Your task to perform on an android device: change notification settings in the gmail app Image 0: 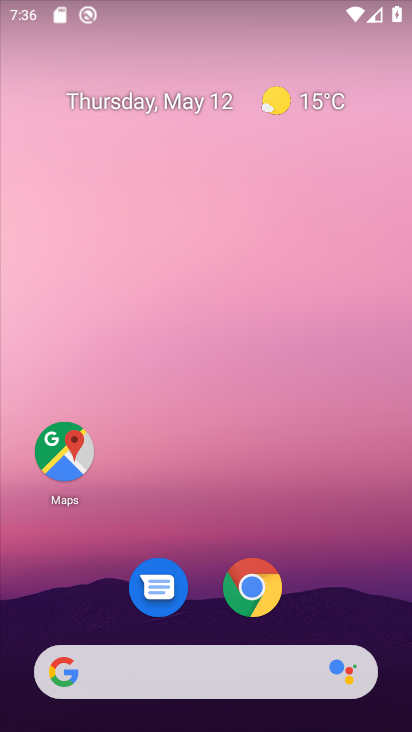
Step 0: drag from (381, 627) to (244, 75)
Your task to perform on an android device: change notification settings in the gmail app Image 1: 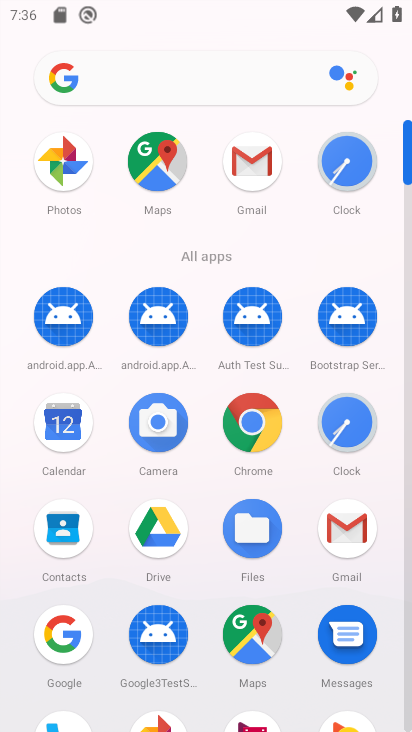
Step 1: click (331, 520)
Your task to perform on an android device: change notification settings in the gmail app Image 2: 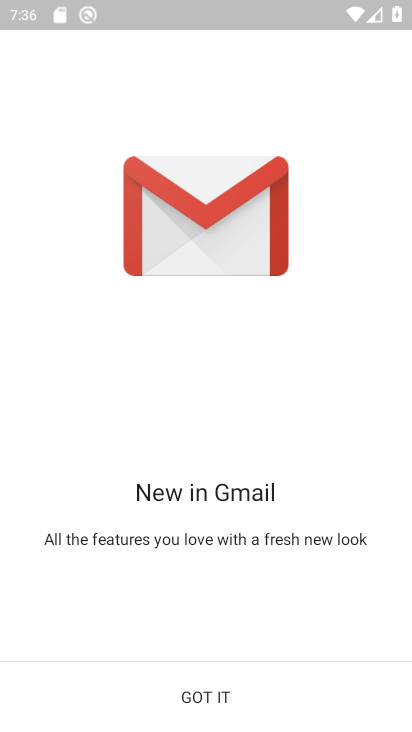
Step 2: click (162, 691)
Your task to perform on an android device: change notification settings in the gmail app Image 3: 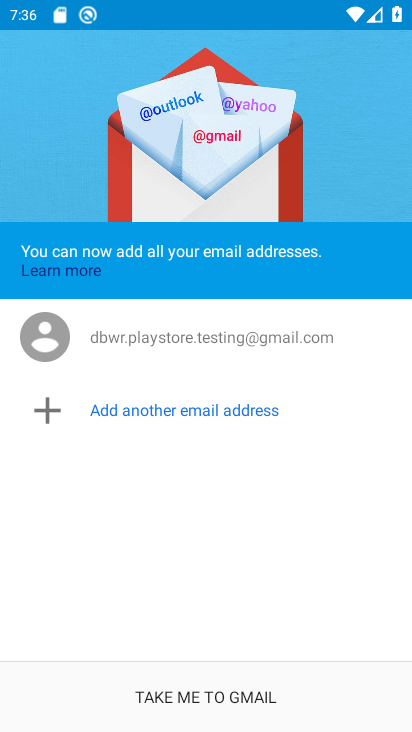
Step 3: click (162, 691)
Your task to perform on an android device: change notification settings in the gmail app Image 4: 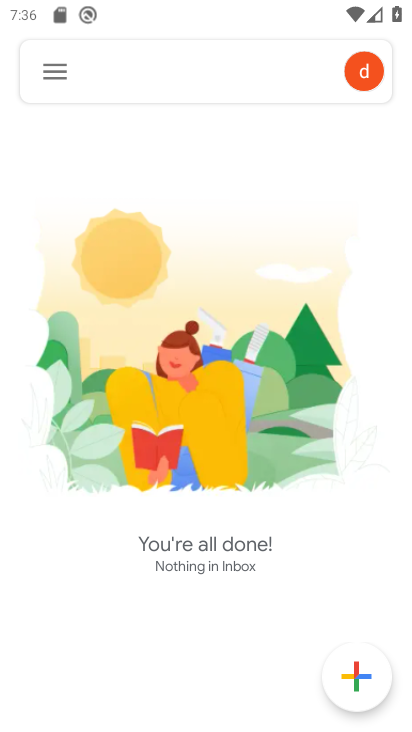
Step 4: click (52, 69)
Your task to perform on an android device: change notification settings in the gmail app Image 5: 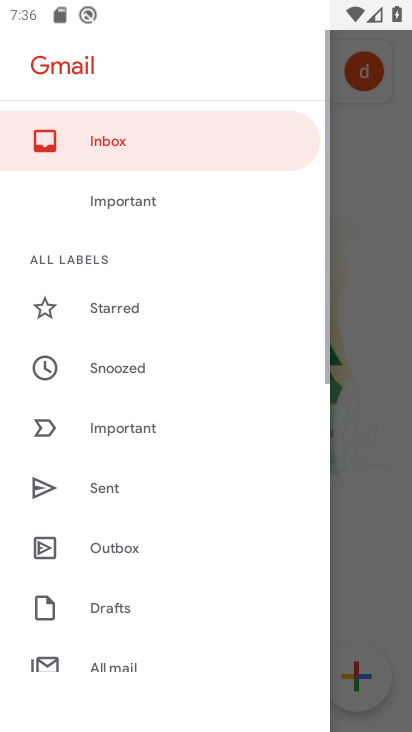
Step 5: drag from (140, 616) to (204, 124)
Your task to perform on an android device: change notification settings in the gmail app Image 6: 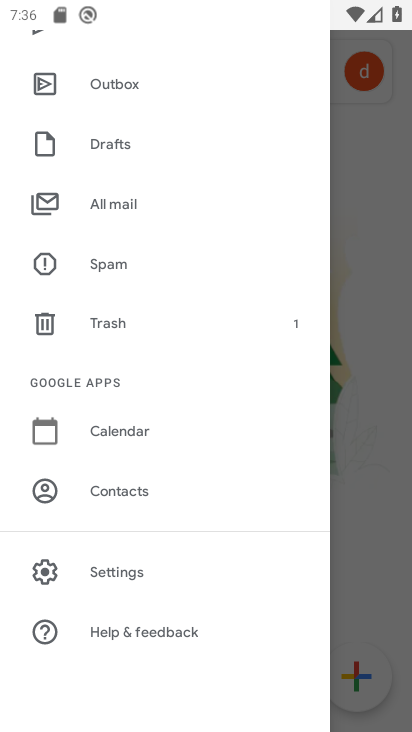
Step 6: click (162, 588)
Your task to perform on an android device: change notification settings in the gmail app Image 7: 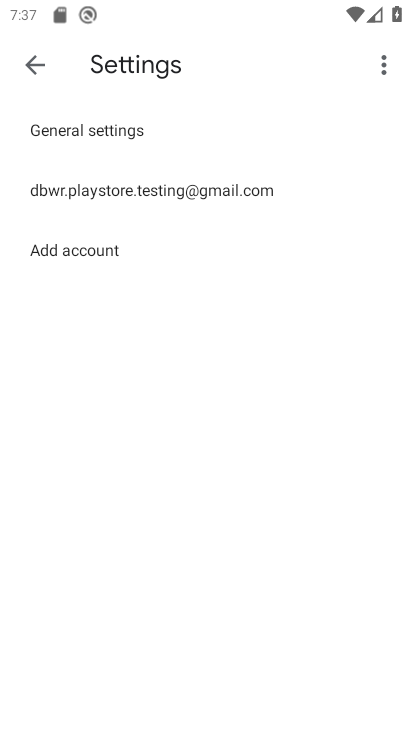
Step 7: click (143, 194)
Your task to perform on an android device: change notification settings in the gmail app Image 8: 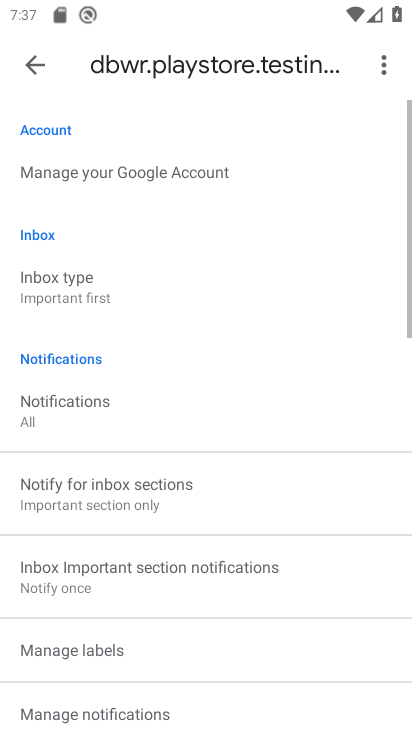
Step 8: click (114, 409)
Your task to perform on an android device: change notification settings in the gmail app Image 9: 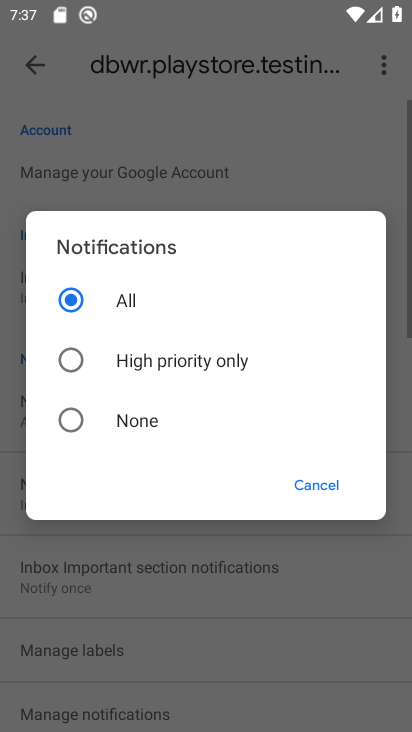
Step 9: click (166, 376)
Your task to perform on an android device: change notification settings in the gmail app Image 10: 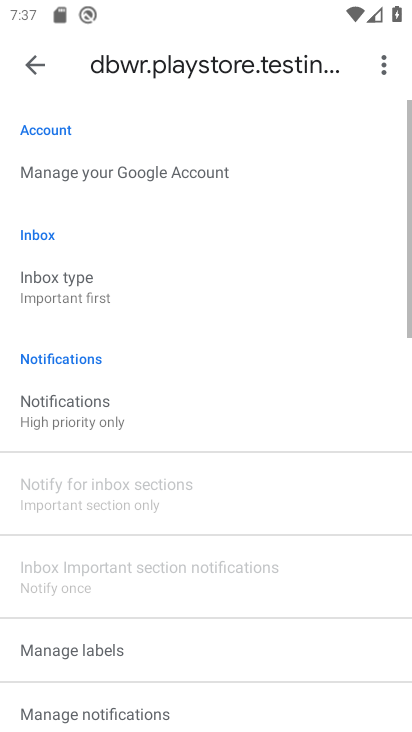
Step 10: task complete